Your task to perform on an android device: turn vacation reply on in the gmail app Image 0: 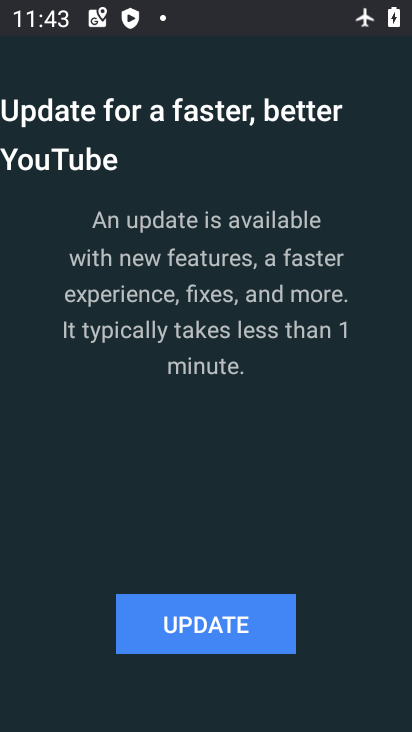
Step 0: press home button
Your task to perform on an android device: turn vacation reply on in the gmail app Image 1: 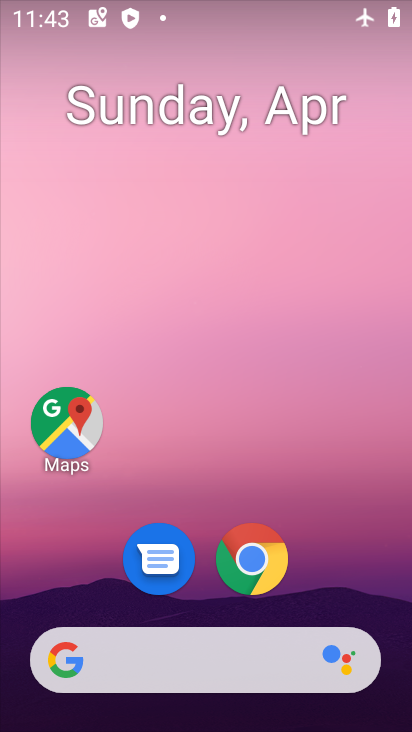
Step 1: drag from (336, 575) to (343, 2)
Your task to perform on an android device: turn vacation reply on in the gmail app Image 2: 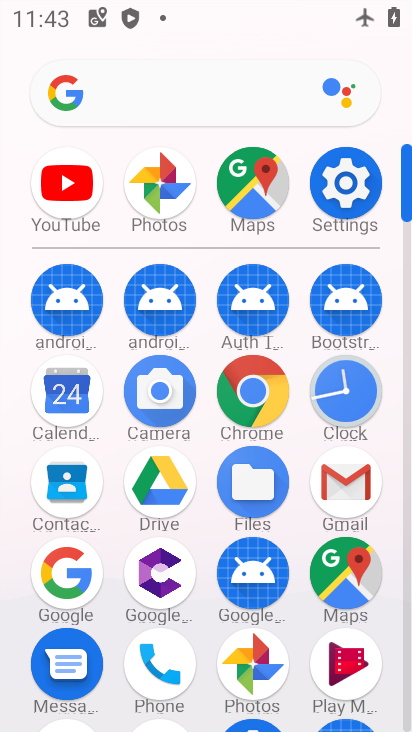
Step 2: click (351, 484)
Your task to perform on an android device: turn vacation reply on in the gmail app Image 3: 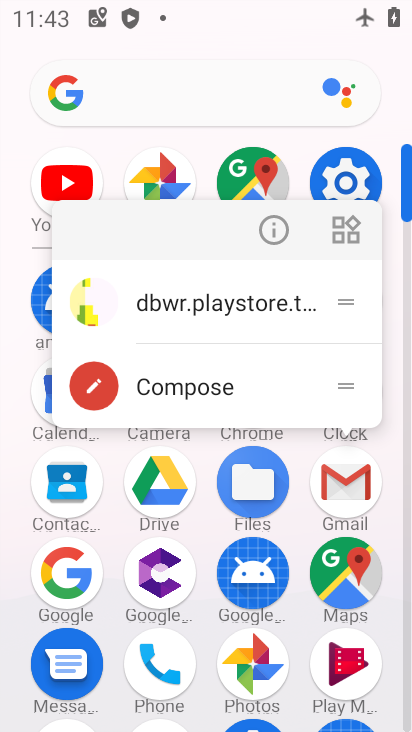
Step 3: click (351, 484)
Your task to perform on an android device: turn vacation reply on in the gmail app Image 4: 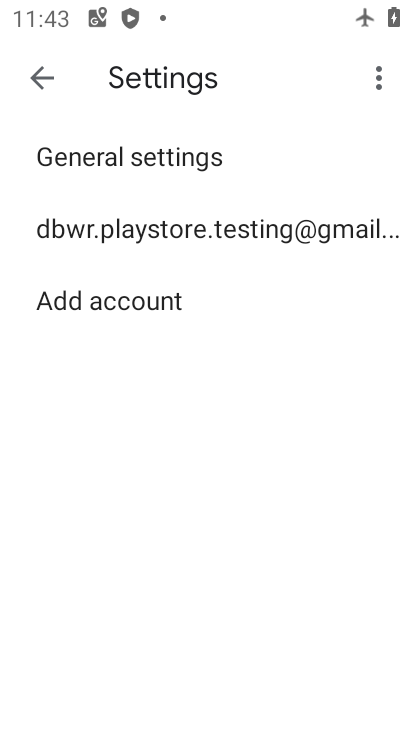
Step 4: click (80, 238)
Your task to perform on an android device: turn vacation reply on in the gmail app Image 5: 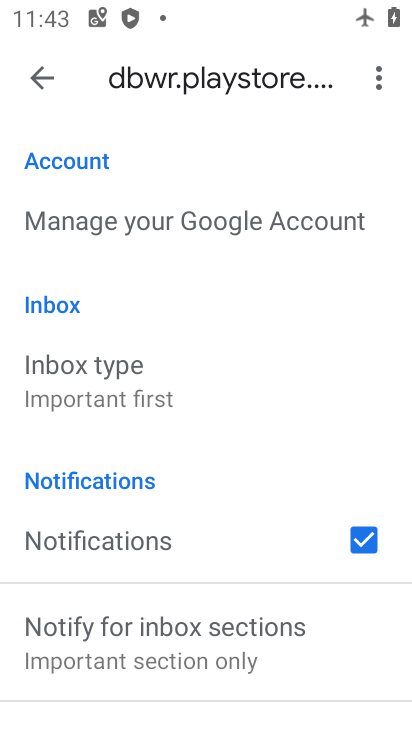
Step 5: drag from (183, 598) to (200, 461)
Your task to perform on an android device: turn vacation reply on in the gmail app Image 6: 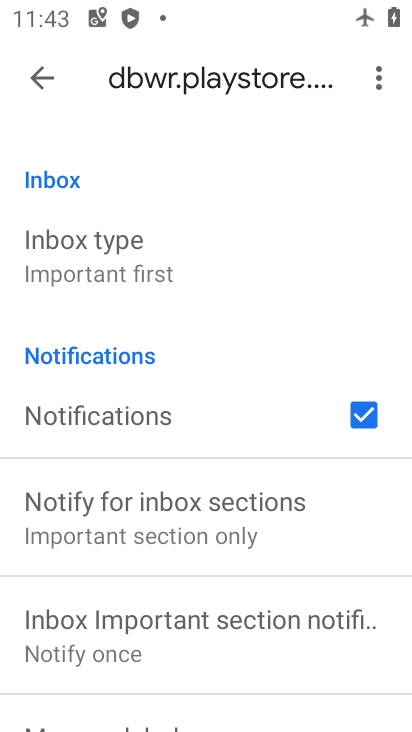
Step 6: drag from (220, 475) to (232, 405)
Your task to perform on an android device: turn vacation reply on in the gmail app Image 7: 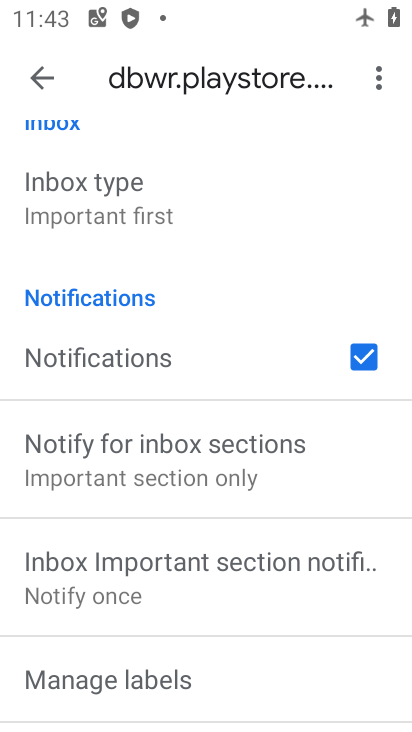
Step 7: drag from (237, 602) to (235, 490)
Your task to perform on an android device: turn vacation reply on in the gmail app Image 8: 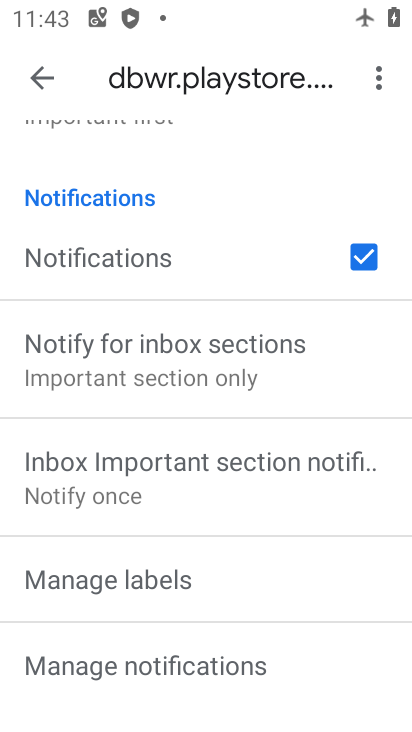
Step 8: drag from (241, 649) to (238, 561)
Your task to perform on an android device: turn vacation reply on in the gmail app Image 9: 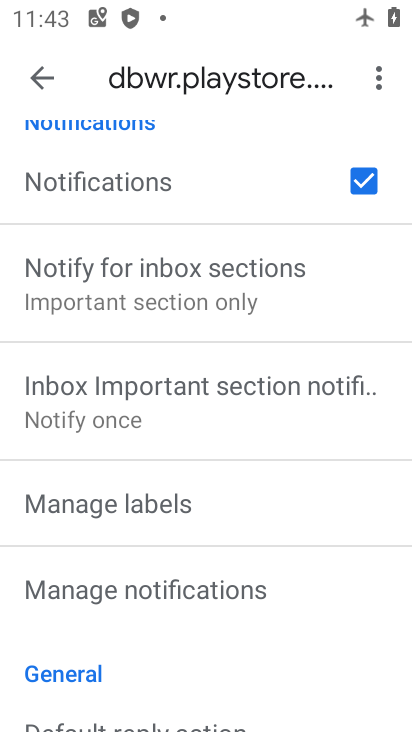
Step 9: drag from (240, 624) to (238, 548)
Your task to perform on an android device: turn vacation reply on in the gmail app Image 10: 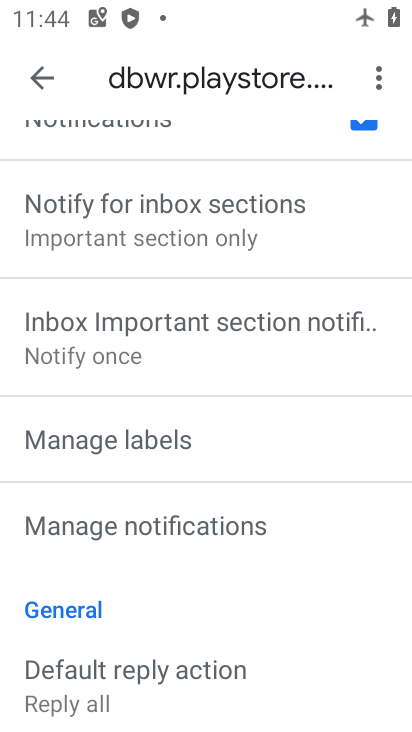
Step 10: drag from (241, 621) to (247, 548)
Your task to perform on an android device: turn vacation reply on in the gmail app Image 11: 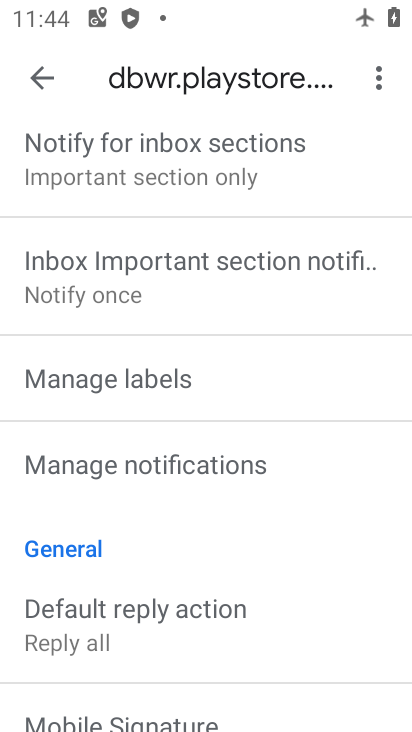
Step 11: drag from (245, 634) to (244, 540)
Your task to perform on an android device: turn vacation reply on in the gmail app Image 12: 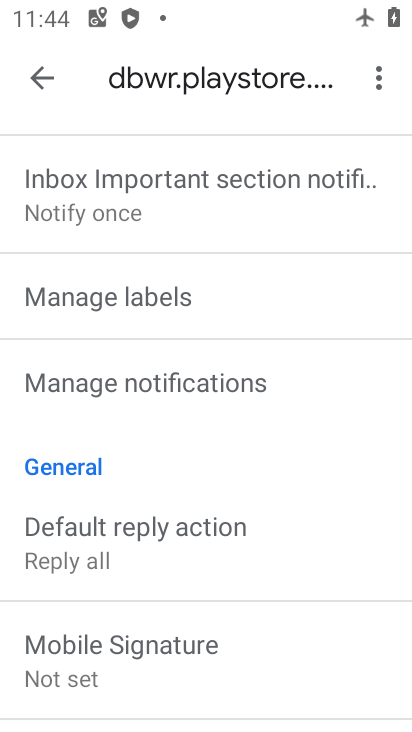
Step 12: drag from (246, 600) to (252, 422)
Your task to perform on an android device: turn vacation reply on in the gmail app Image 13: 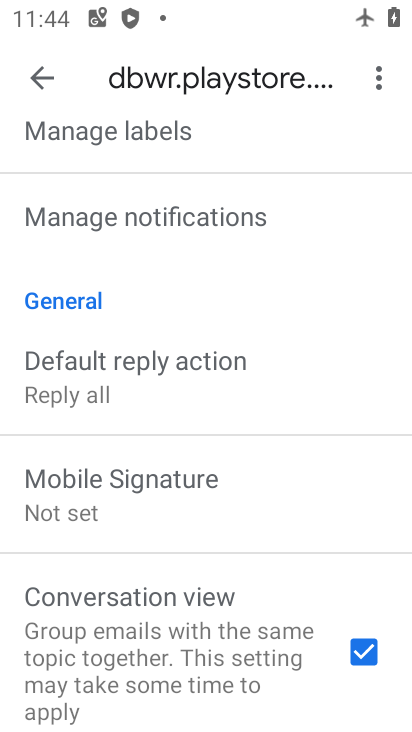
Step 13: drag from (226, 629) to (258, 335)
Your task to perform on an android device: turn vacation reply on in the gmail app Image 14: 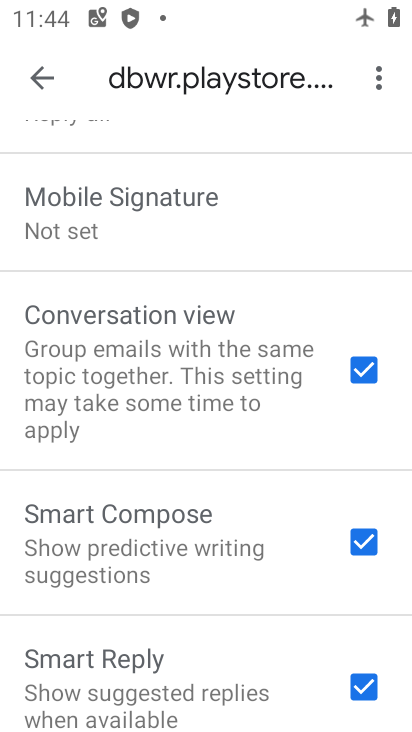
Step 14: drag from (167, 591) to (172, 347)
Your task to perform on an android device: turn vacation reply on in the gmail app Image 15: 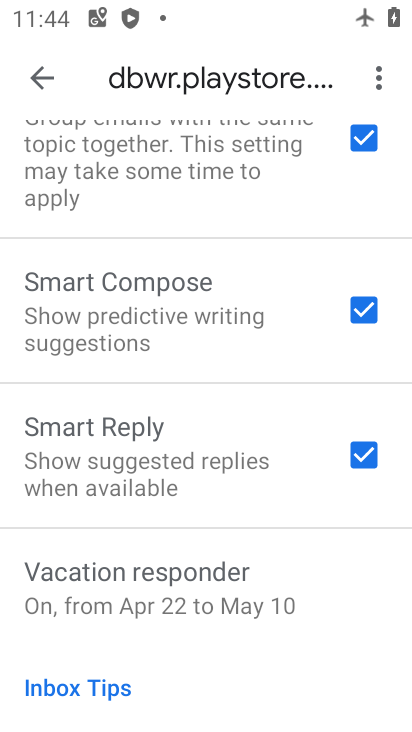
Step 15: click (184, 608)
Your task to perform on an android device: turn vacation reply on in the gmail app Image 16: 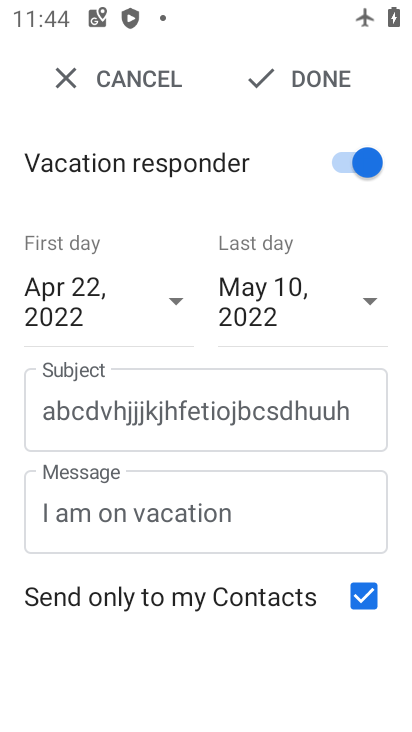
Step 16: click (322, 80)
Your task to perform on an android device: turn vacation reply on in the gmail app Image 17: 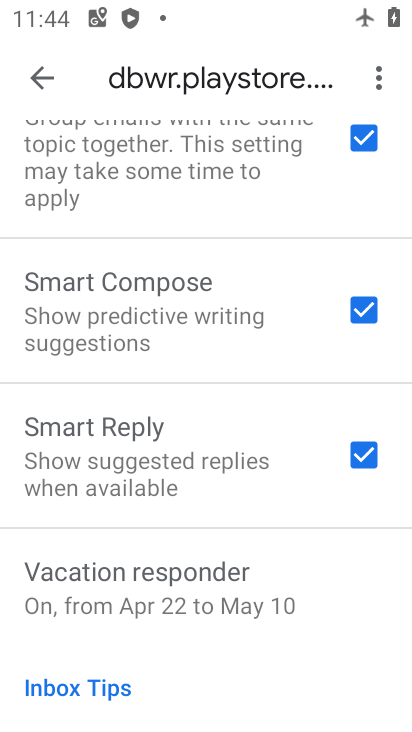
Step 17: task complete